Your task to perform on an android device: Search for Italian restaurants on Maps Image 0: 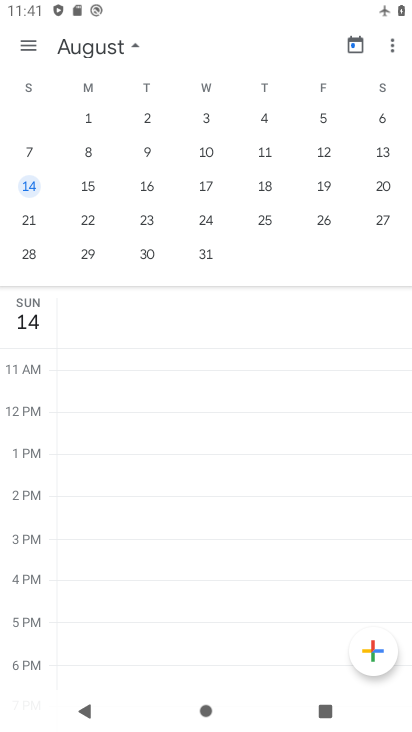
Step 0: press home button
Your task to perform on an android device: Search for Italian restaurants on Maps Image 1: 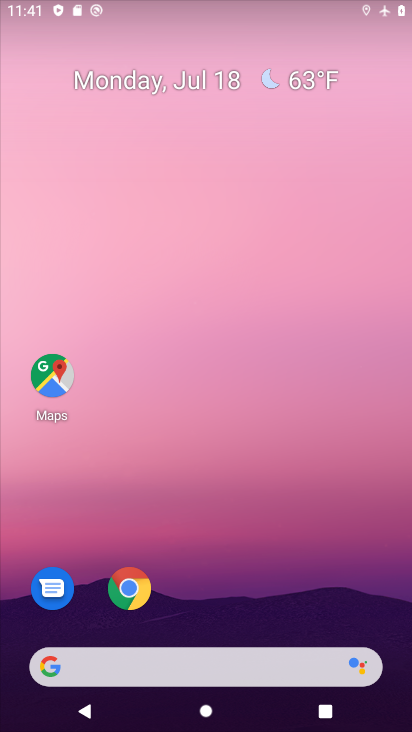
Step 1: drag from (371, 333) to (400, 17)
Your task to perform on an android device: Search for Italian restaurants on Maps Image 2: 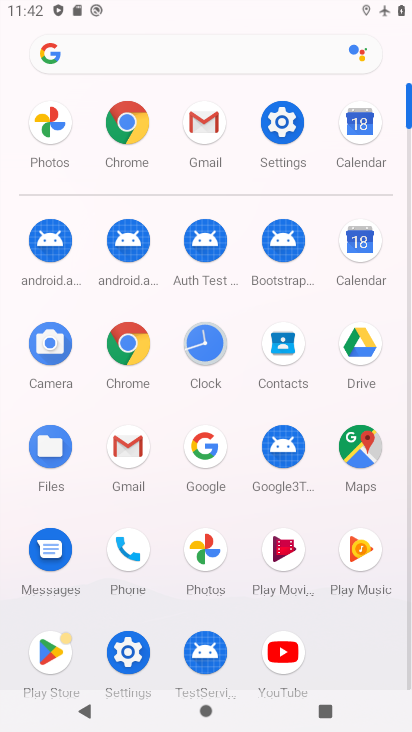
Step 2: click (358, 453)
Your task to perform on an android device: Search for Italian restaurants on Maps Image 3: 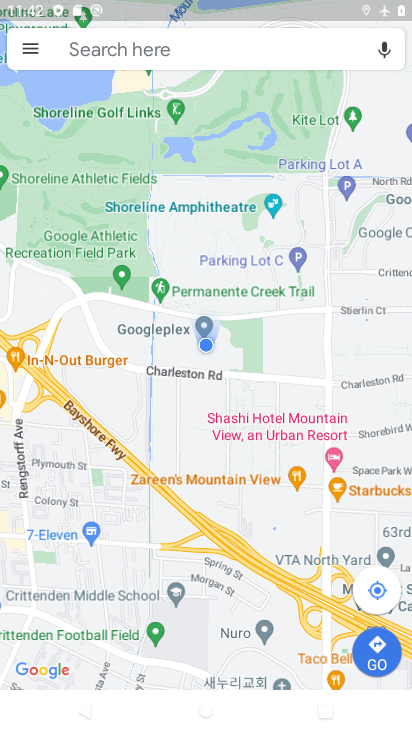
Step 3: click (137, 55)
Your task to perform on an android device: Search for Italian restaurants on Maps Image 4: 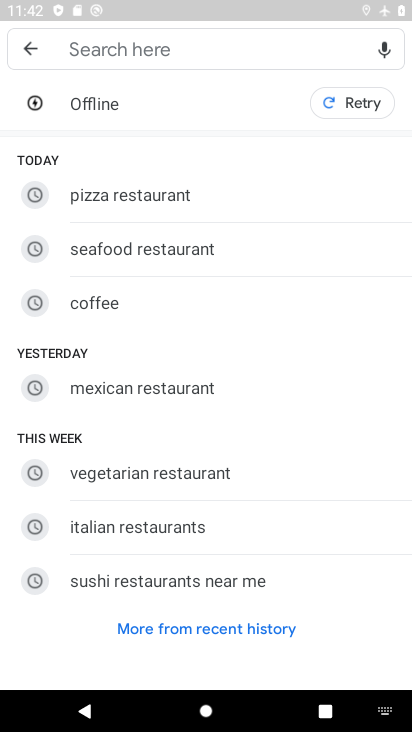
Step 4: drag from (142, 571) to (271, 184)
Your task to perform on an android device: Search for Italian restaurants on Maps Image 5: 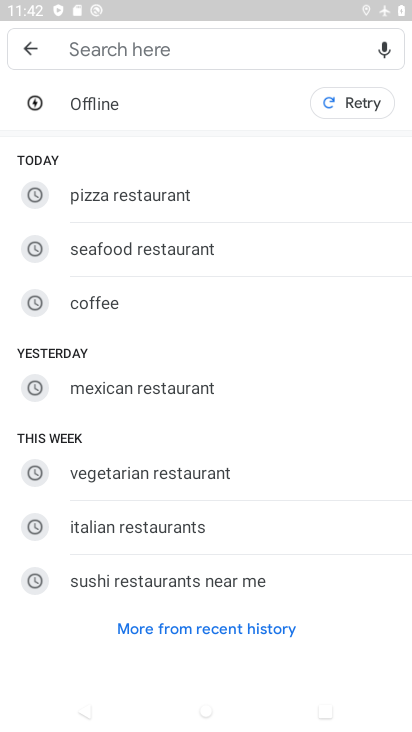
Step 5: click (150, 529)
Your task to perform on an android device: Search for Italian restaurants on Maps Image 6: 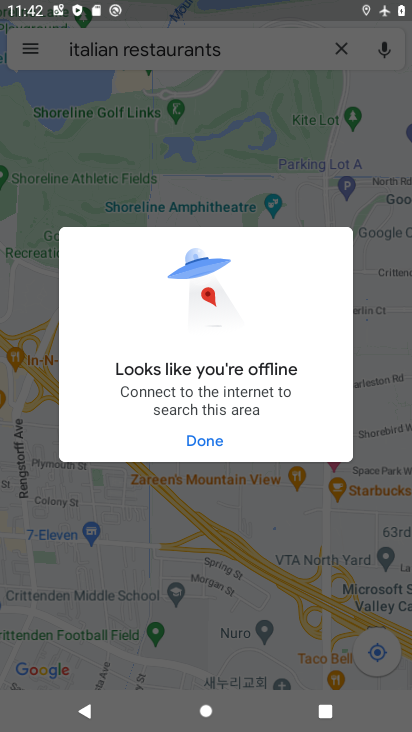
Step 6: click (219, 447)
Your task to perform on an android device: Search for Italian restaurants on Maps Image 7: 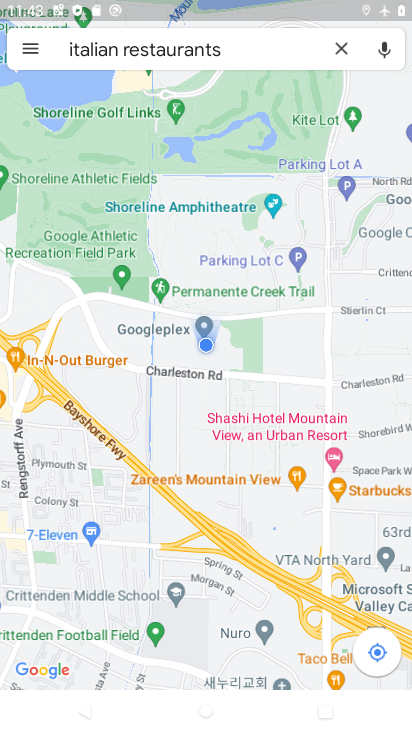
Step 7: task complete